Your task to perform on an android device: Do I have any events today? Image 0: 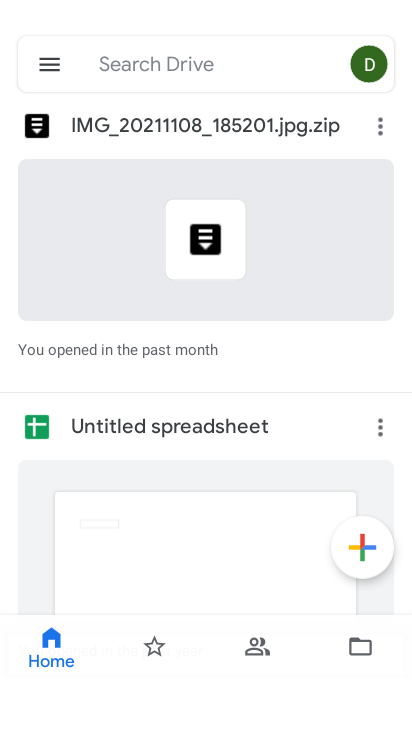
Step 0: press home button
Your task to perform on an android device: Do I have any events today? Image 1: 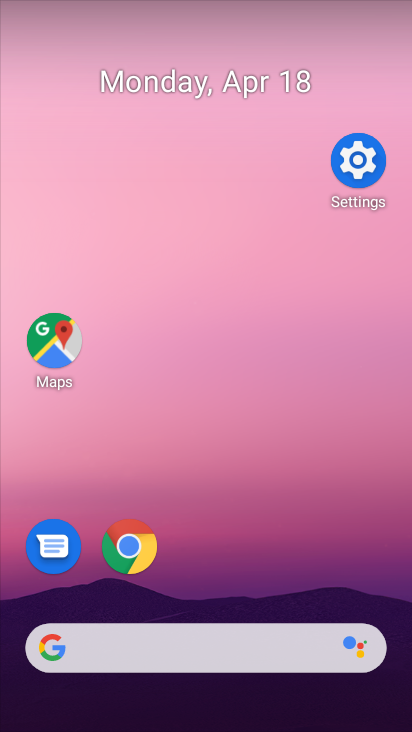
Step 1: press home button
Your task to perform on an android device: Do I have any events today? Image 2: 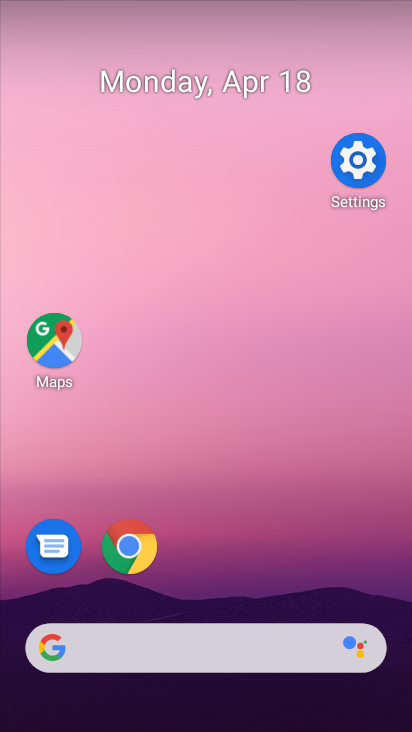
Step 2: drag from (266, 592) to (216, 327)
Your task to perform on an android device: Do I have any events today? Image 3: 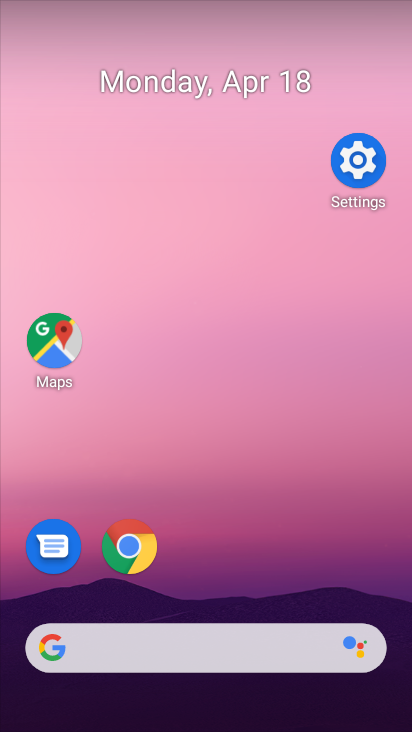
Step 3: drag from (264, 556) to (183, 30)
Your task to perform on an android device: Do I have any events today? Image 4: 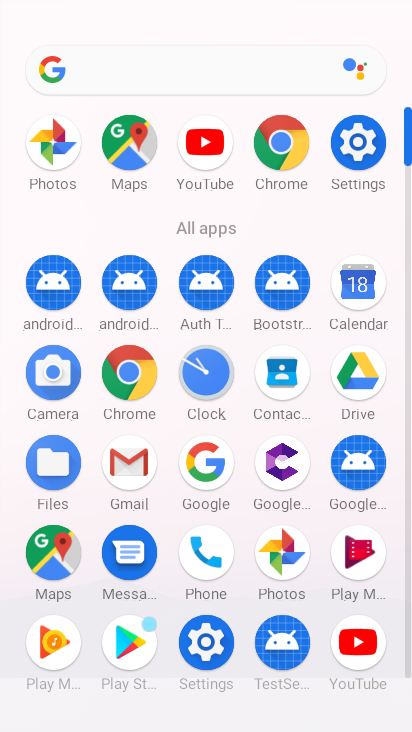
Step 4: click (354, 281)
Your task to perform on an android device: Do I have any events today? Image 5: 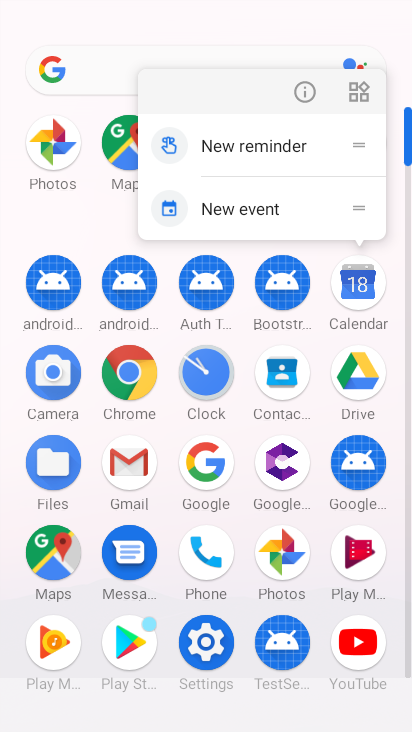
Step 5: click (349, 294)
Your task to perform on an android device: Do I have any events today? Image 6: 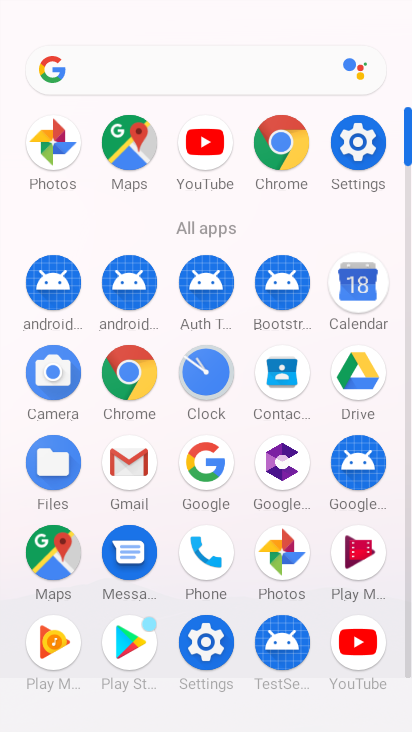
Step 6: click (349, 294)
Your task to perform on an android device: Do I have any events today? Image 7: 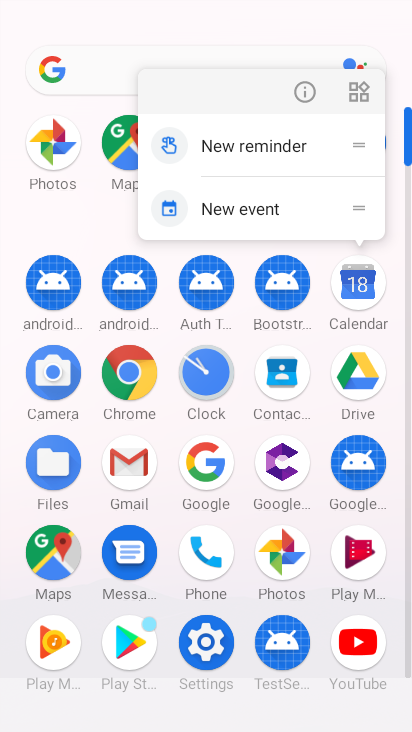
Step 7: click (349, 294)
Your task to perform on an android device: Do I have any events today? Image 8: 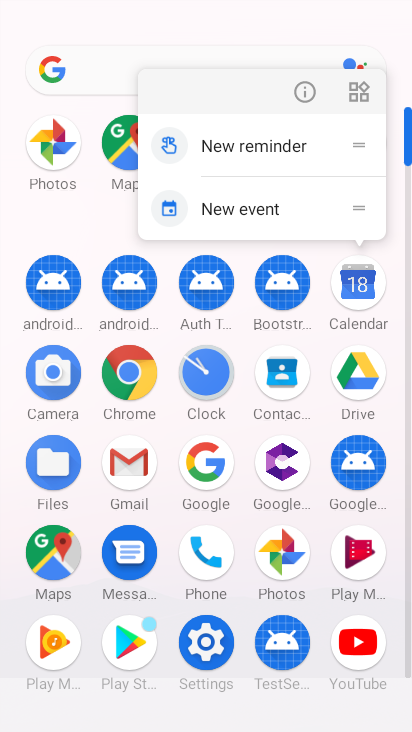
Step 8: click (349, 294)
Your task to perform on an android device: Do I have any events today? Image 9: 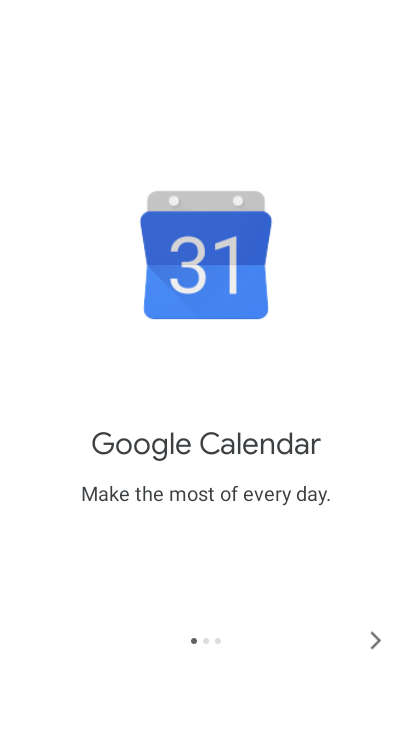
Step 9: click (369, 640)
Your task to perform on an android device: Do I have any events today? Image 10: 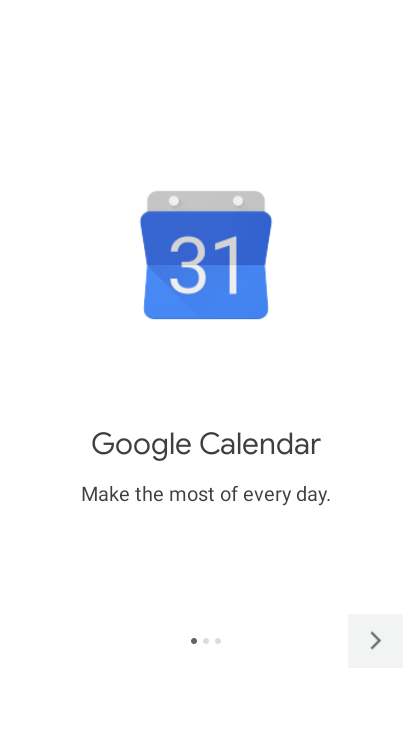
Step 10: click (371, 639)
Your task to perform on an android device: Do I have any events today? Image 11: 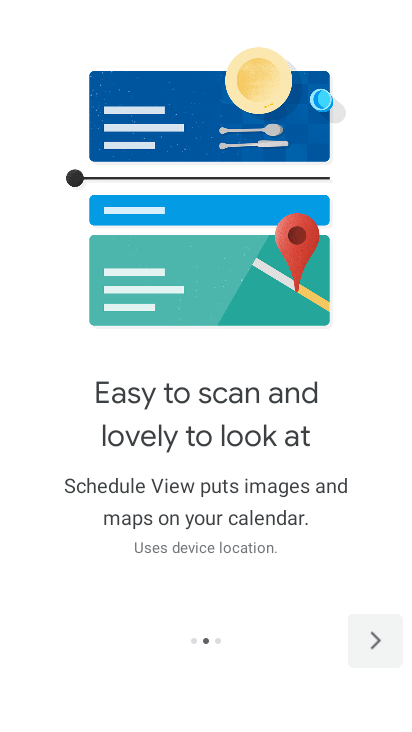
Step 11: click (378, 631)
Your task to perform on an android device: Do I have any events today? Image 12: 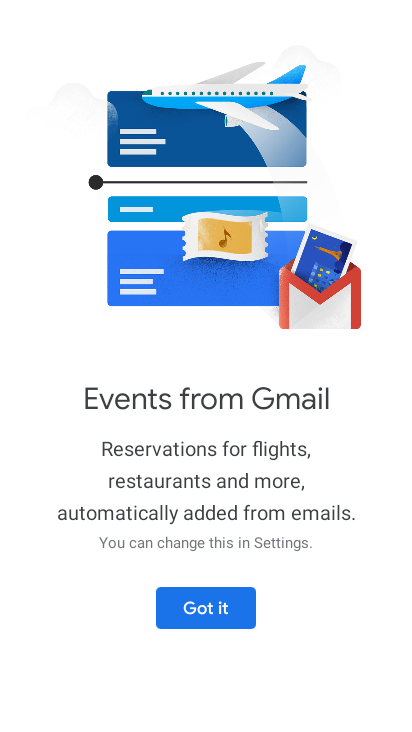
Step 12: click (223, 591)
Your task to perform on an android device: Do I have any events today? Image 13: 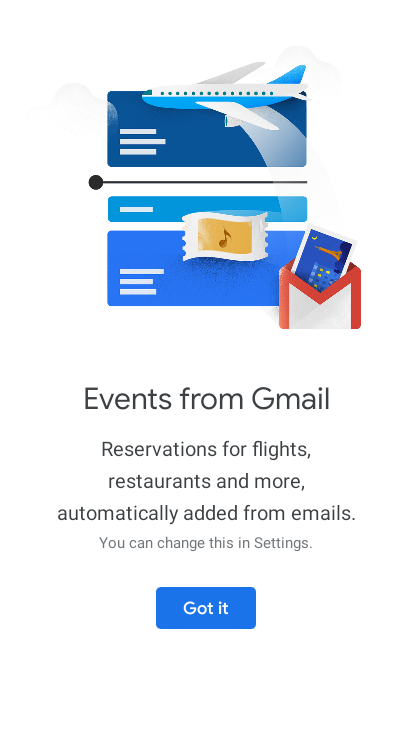
Step 13: click (221, 587)
Your task to perform on an android device: Do I have any events today? Image 14: 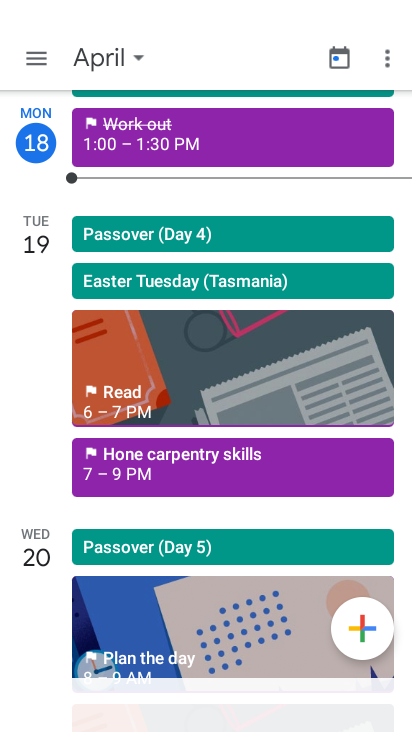
Step 14: click (144, 230)
Your task to perform on an android device: Do I have any events today? Image 15: 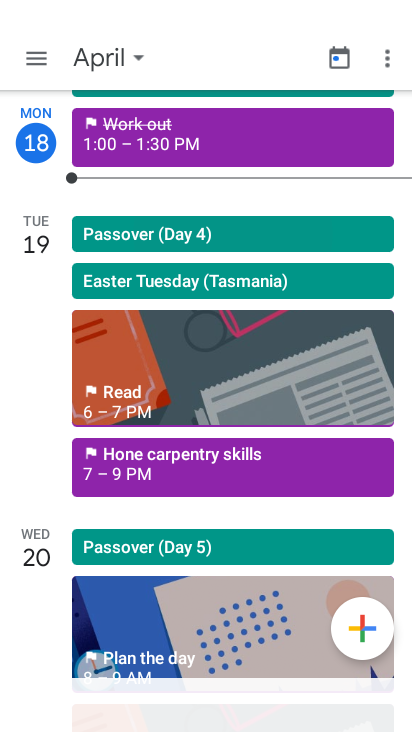
Step 15: click (144, 232)
Your task to perform on an android device: Do I have any events today? Image 16: 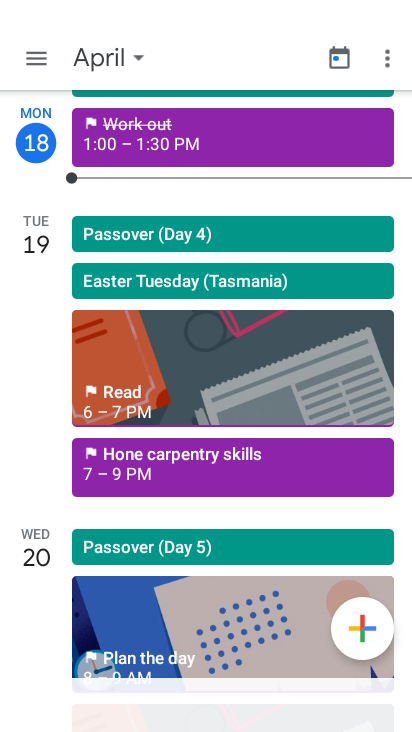
Step 16: click (141, 236)
Your task to perform on an android device: Do I have any events today? Image 17: 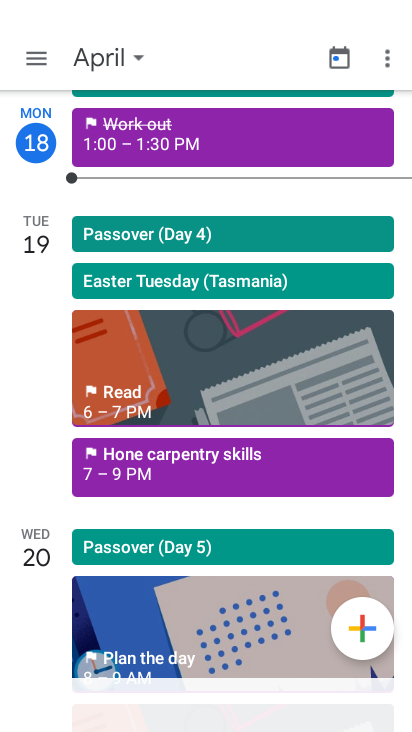
Step 17: task complete